Your task to perform on an android device: star an email in the gmail app Image 0: 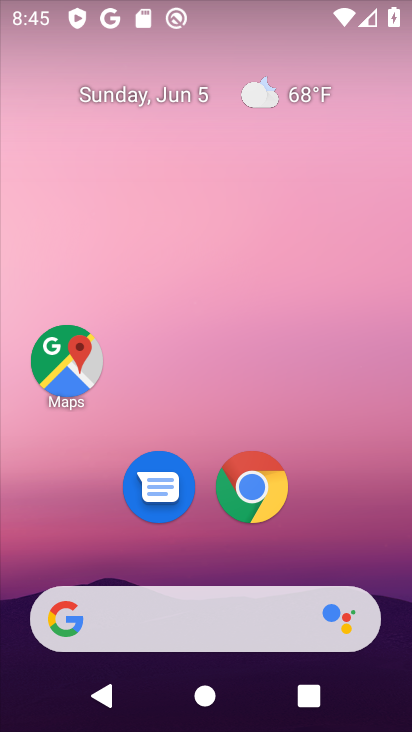
Step 0: drag from (253, 527) to (271, 35)
Your task to perform on an android device: star an email in the gmail app Image 1: 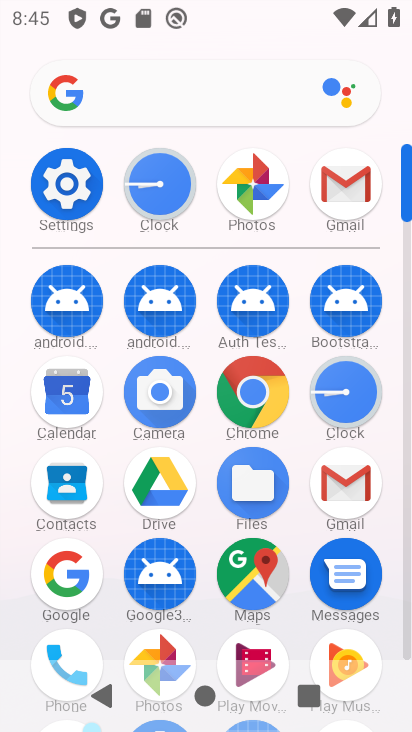
Step 1: click (341, 177)
Your task to perform on an android device: star an email in the gmail app Image 2: 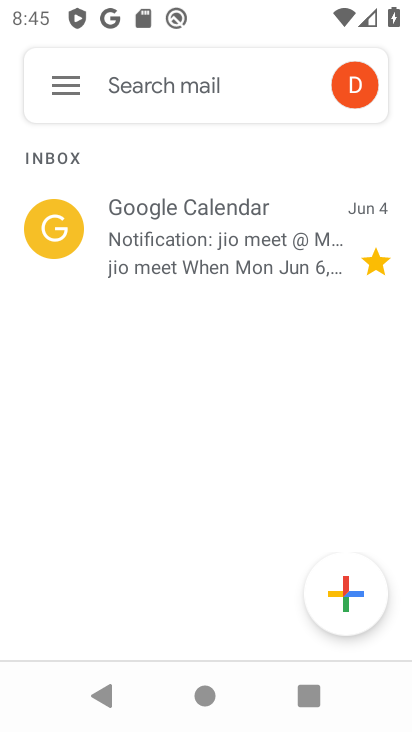
Step 2: click (60, 89)
Your task to perform on an android device: star an email in the gmail app Image 3: 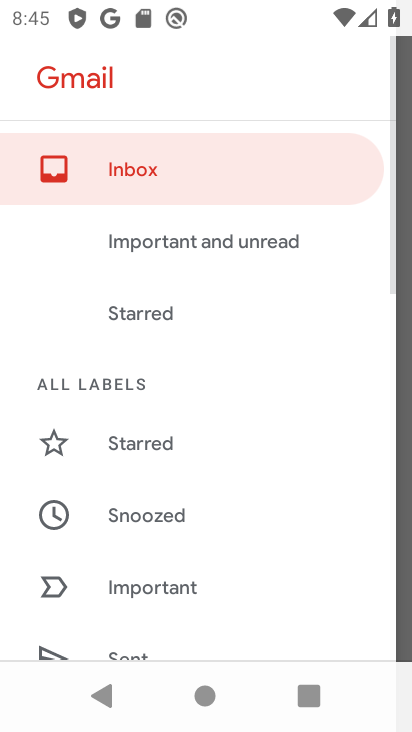
Step 3: drag from (175, 629) to (287, 96)
Your task to perform on an android device: star an email in the gmail app Image 4: 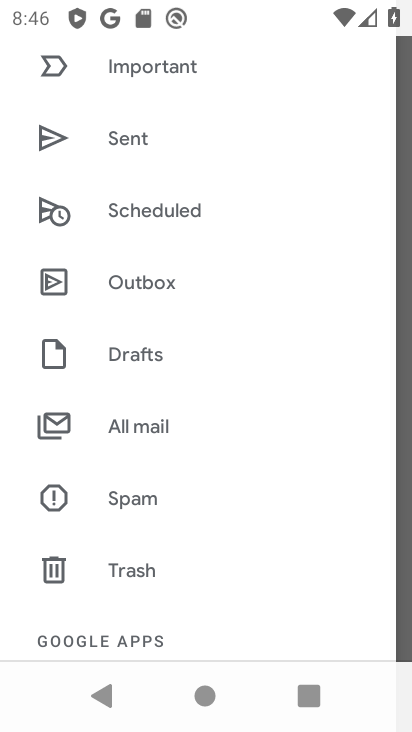
Step 4: click (152, 420)
Your task to perform on an android device: star an email in the gmail app Image 5: 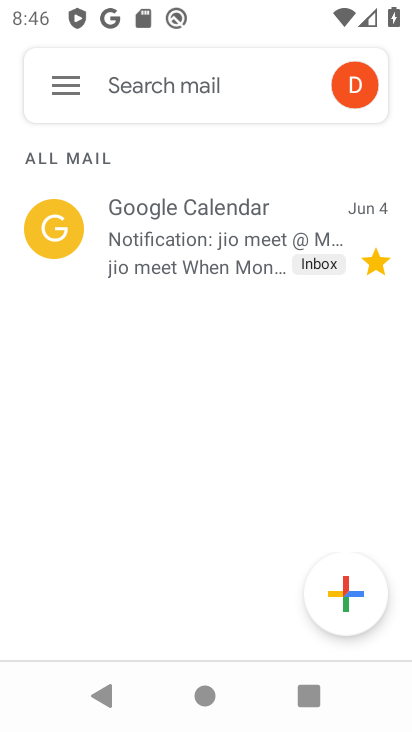
Step 5: task complete